Your task to perform on an android device: What is the news today? Image 0: 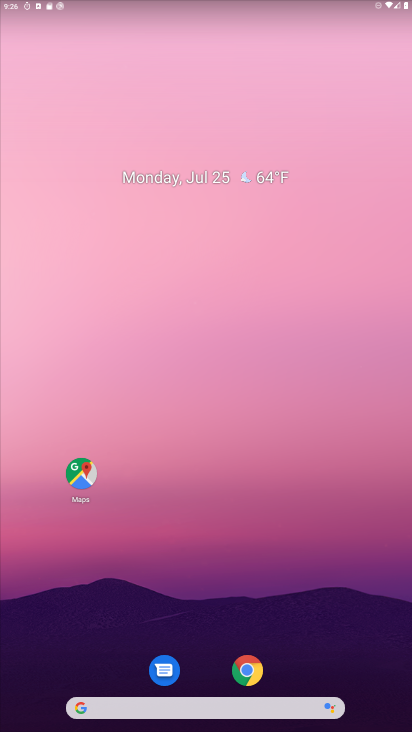
Step 0: drag from (407, 635) to (116, 29)
Your task to perform on an android device: What is the news today? Image 1: 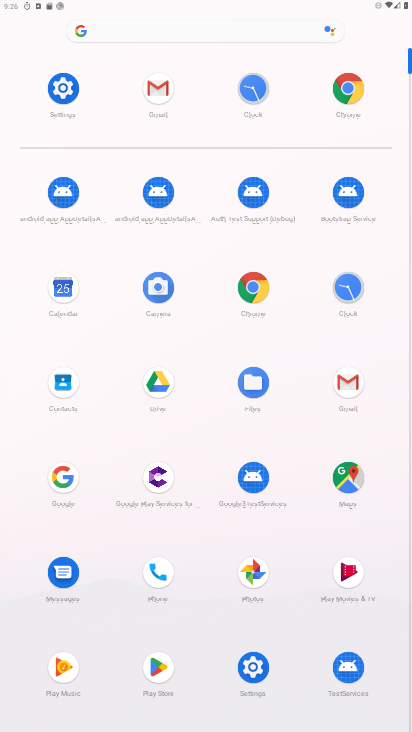
Step 1: click (49, 479)
Your task to perform on an android device: What is the news today? Image 2: 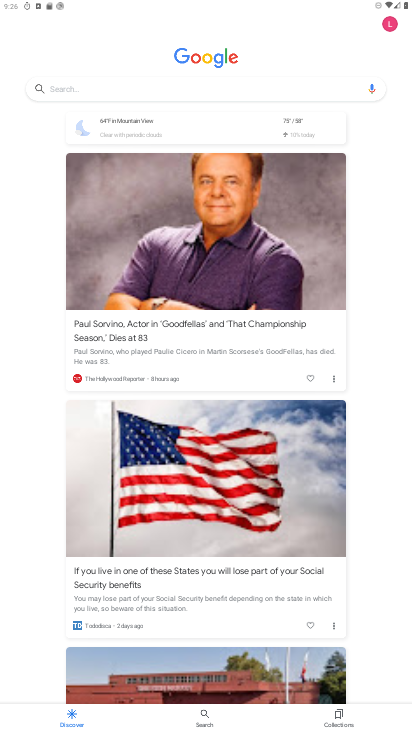
Step 2: click (94, 91)
Your task to perform on an android device: What is the news today? Image 3: 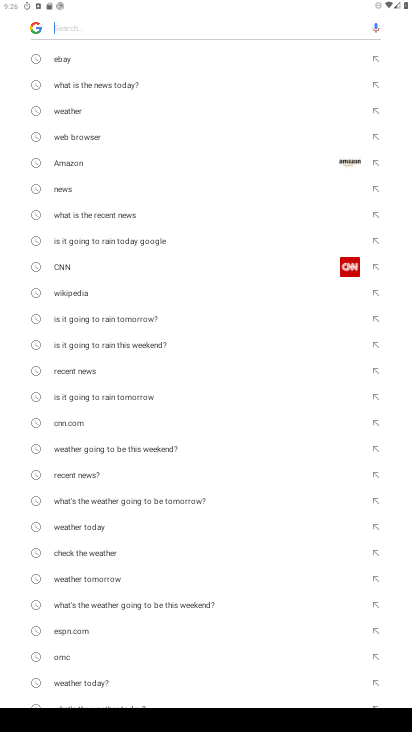
Step 3: click (129, 86)
Your task to perform on an android device: What is the news today? Image 4: 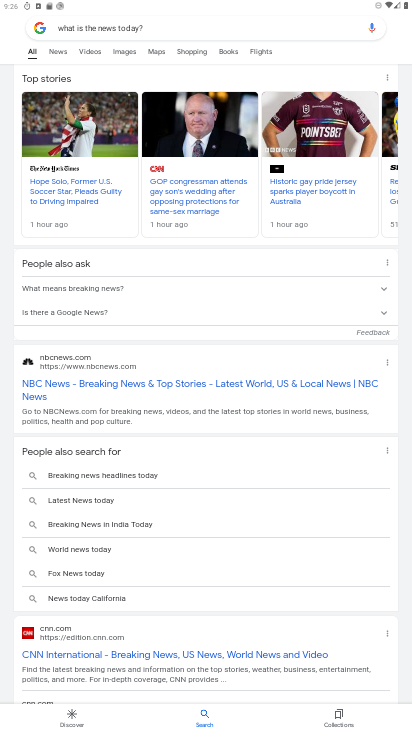
Step 4: task complete